Your task to perform on an android device: Go to Android settings Image 0: 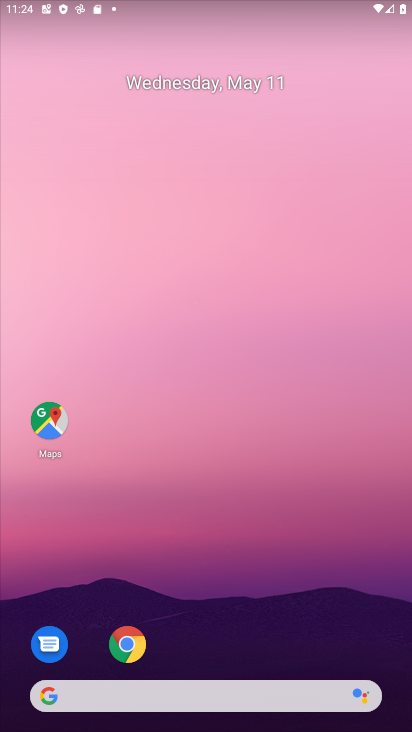
Step 0: drag from (288, 601) to (252, 137)
Your task to perform on an android device: Go to Android settings Image 1: 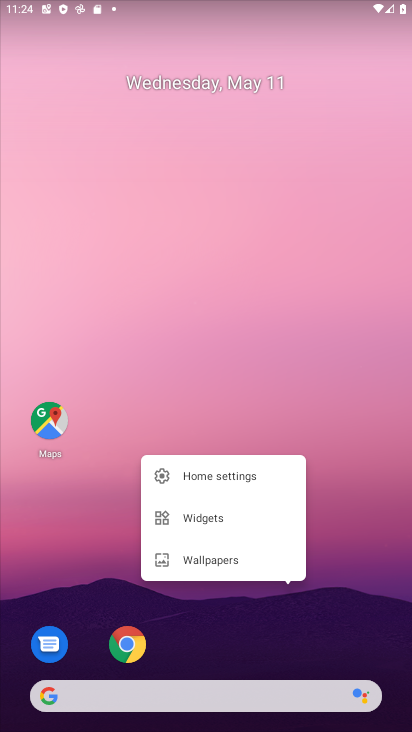
Step 1: click (331, 437)
Your task to perform on an android device: Go to Android settings Image 2: 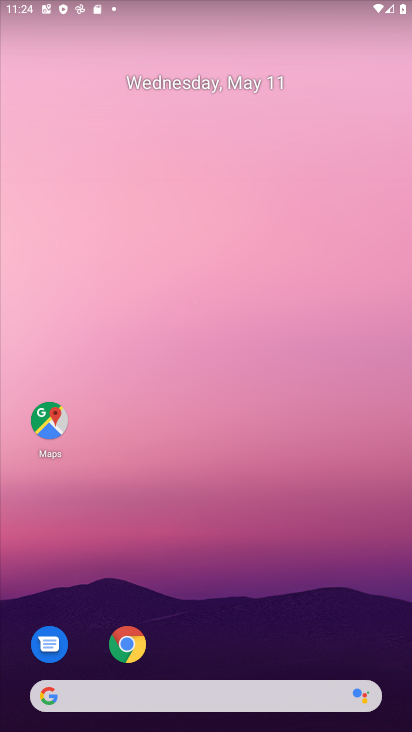
Step 2: drag from (252, 637) to (189, 126)
Your task to perform on an android device: Go to Android settings Image 3: 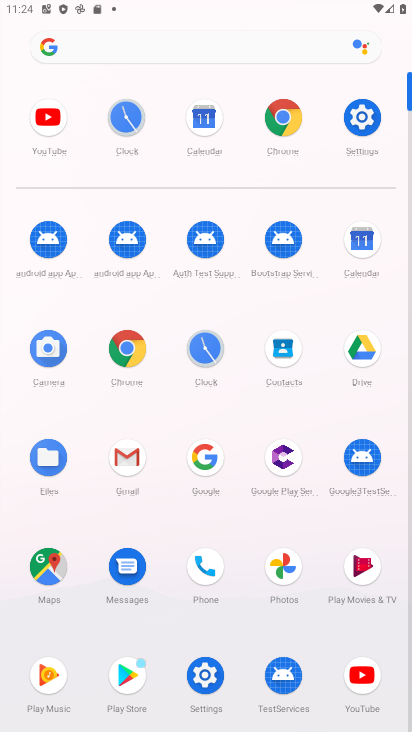
Step 3: click (359, 136)
Your task to perform on an android device: Go to Android settings Image 4: 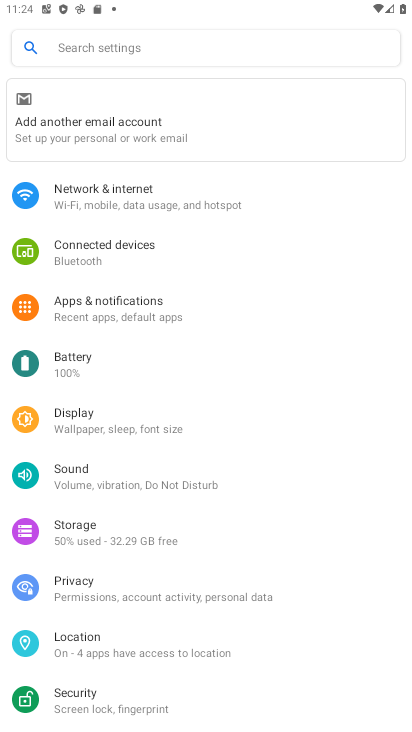
Step 4: drag from (210, 626) to (172, 60)
Your task to perform on an android device: Go to Android settings Image 5: 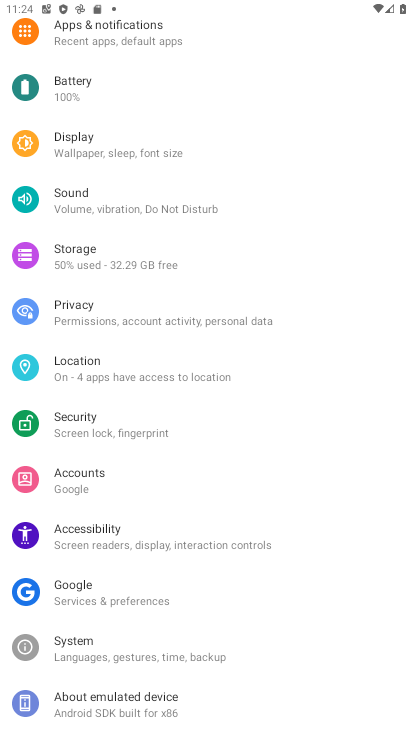
Step 5: click (154, 686)
Your task to perform on an android device: Go to Android settings Image 6: 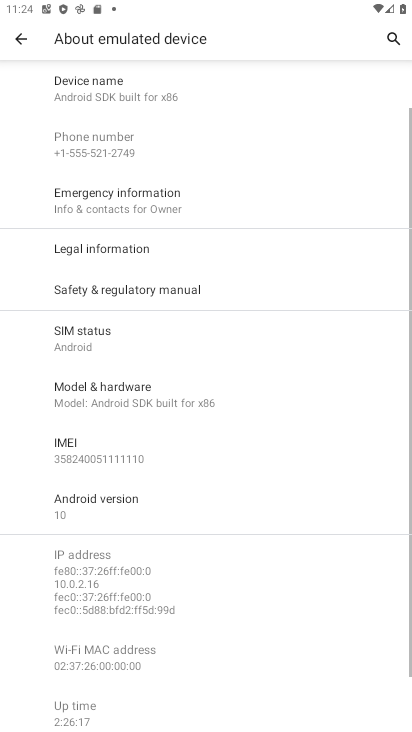
Step 6: task complete